Your task to perform on an android device: Go to eBay Image 0: 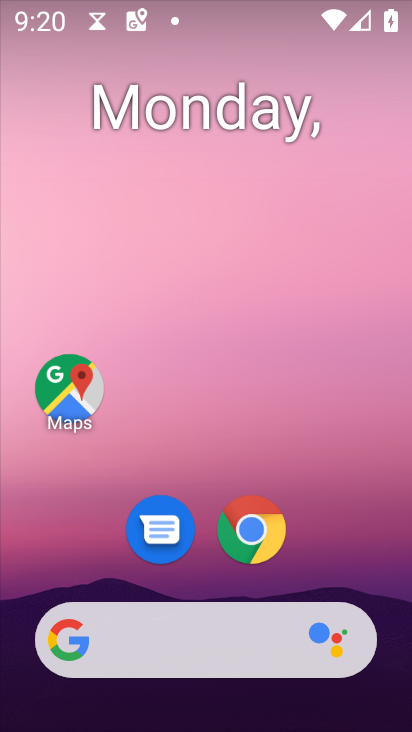
Step 0: drag from (281, 708) to (198, 63)
Your task to perform on an android device: Go to eBay Image 1: 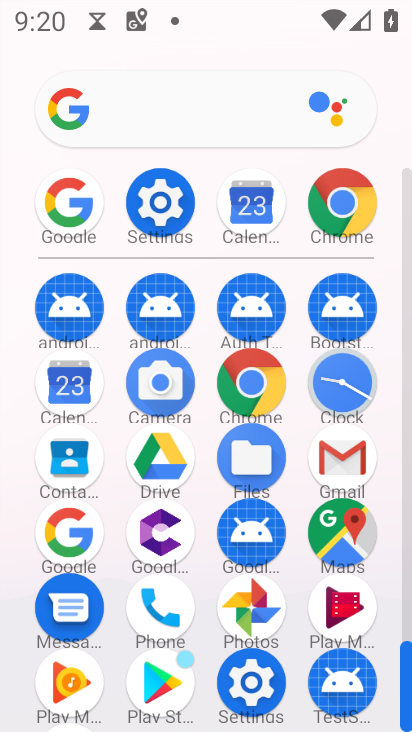
Step 1: click (327, 203)
Your task to perform on an android device: Go to eBay Image 2: 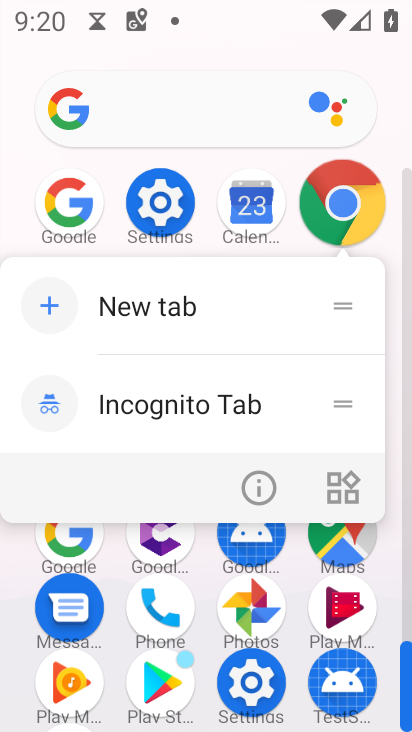
Step 2: click (331, 200)
Your task to perform on an android device: Go to eBay Image 3: 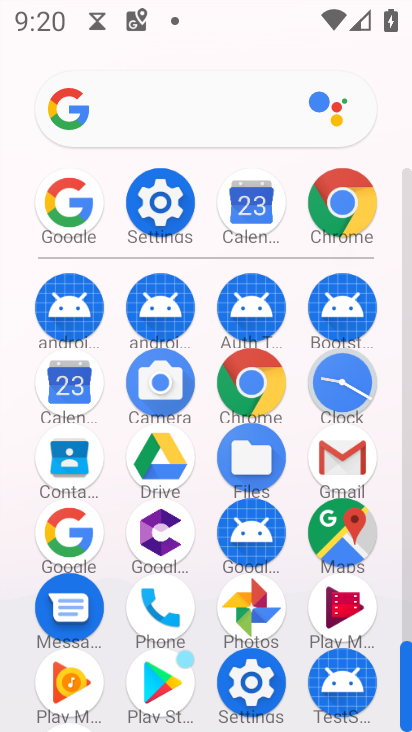
Step 3: click (333, 199)
Your task to perform on an android device: Go to eBay Image 4: 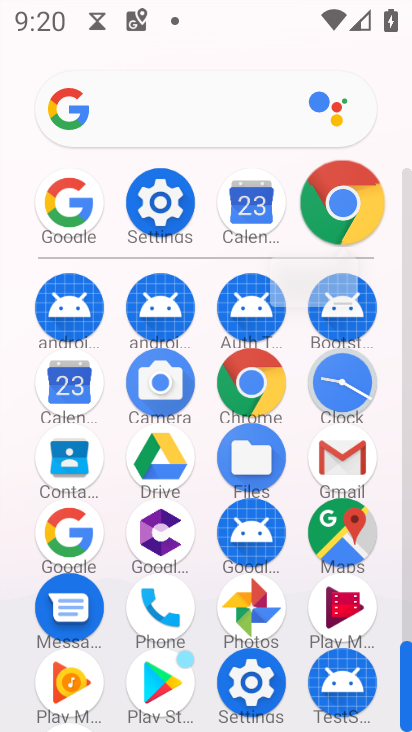
Step 4: click (337, 195)
Your task to perform on an android device: Go to eBay Image 5: 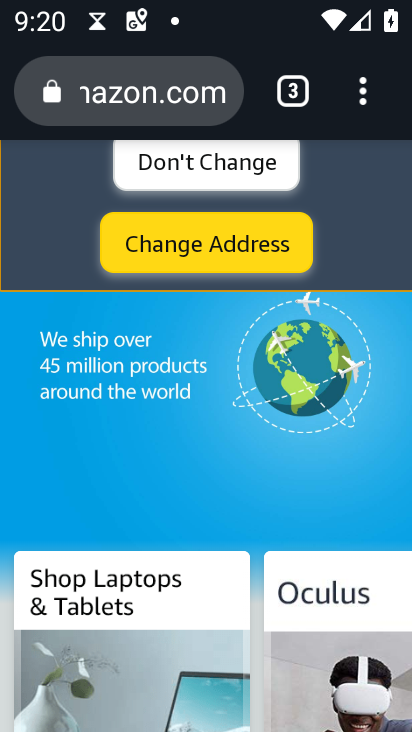
Step 5: drag from (360, 101) to (46, 176)
Your task to perform on an android device: Go to eBay Image 6: 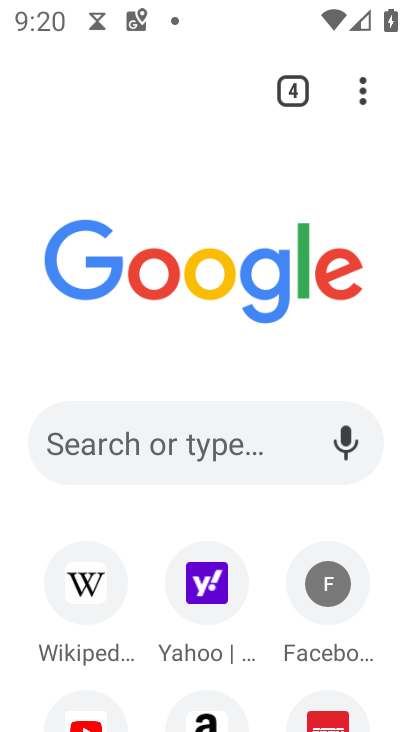
Step 6: click (113, 435)
Your task to perform on an android device: Go to eBay Image 7: 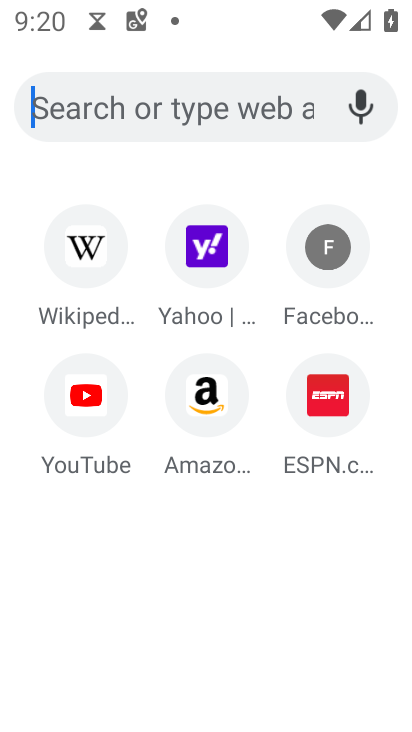
Step 7: click (112, 437)
Your task to perform on an android device: Go to eBay Image 8: 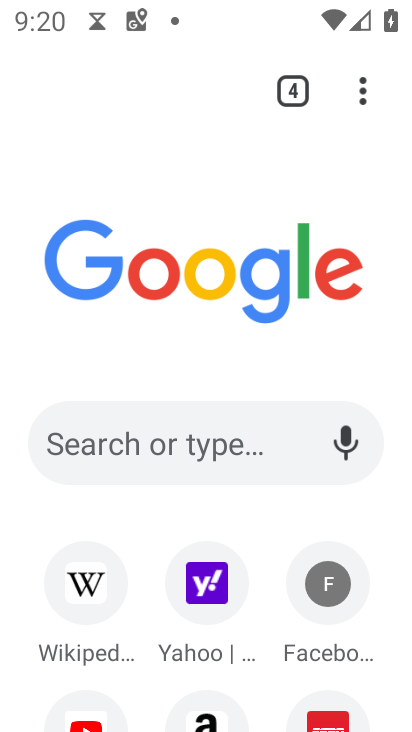
Step 8: click (102, 443)
Your task to perform on an android device: Go to eBay Image 9: 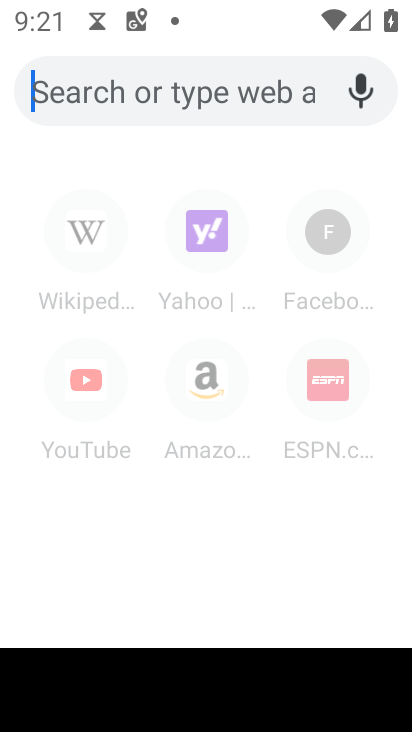
Step 9: type "ebay.com"
Your task to perform on an android device: Go to eBay Image 10: 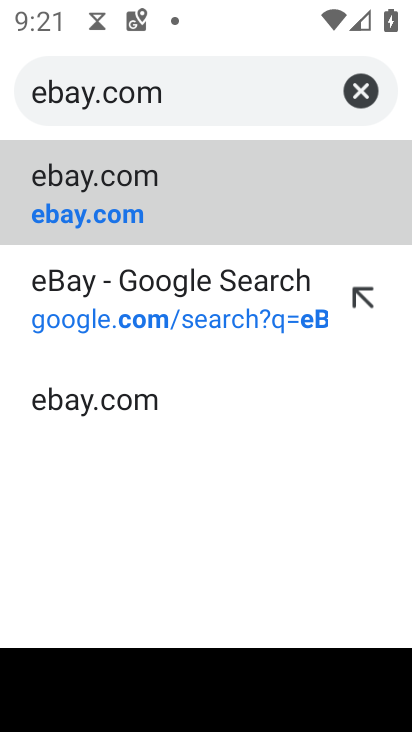
Step 10: task complete